Your task to perform on an android device: Go to internet settings Image 0: 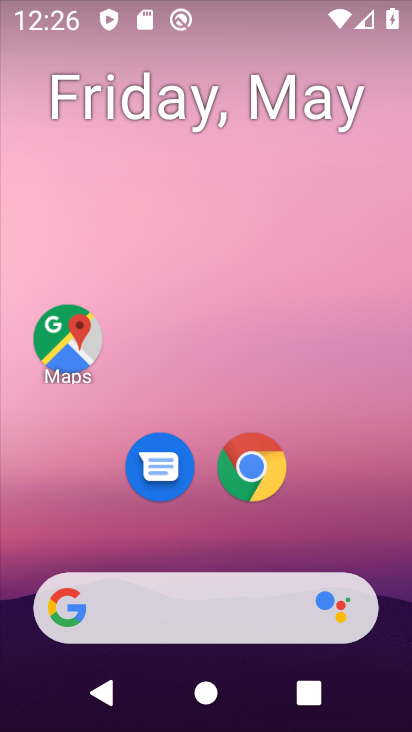
Step 0: drag from (386, 544) to (347, 69)
Your task to perform on an android device: Go to internet settings Image 1: 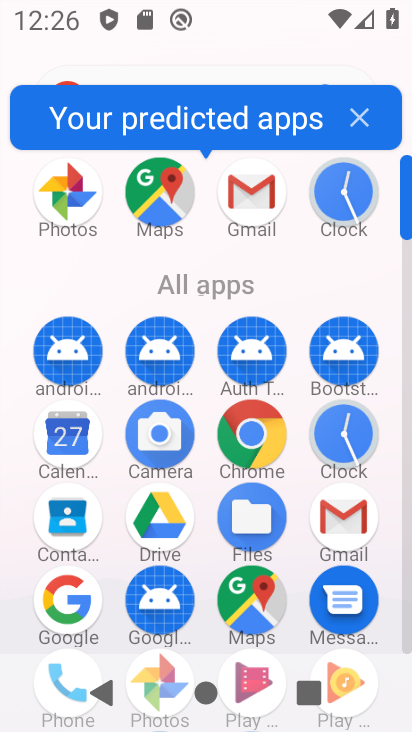
Step 1: click (406, 640)
Your task to perform on an android device: Go to internet settings Image 2: 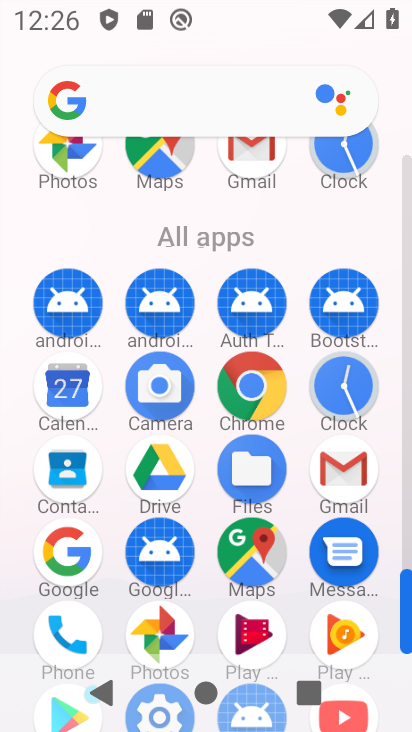
Step 2: drag from (406, 640) to (411, 714)
Your task to perform on an android device: Go to internet settings Image 3: 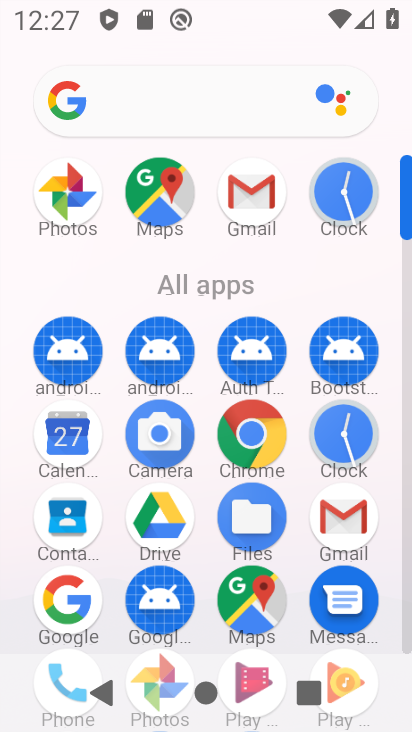
Step 3: click (404, 642)
Your task to perform on an android device: Go to internet settings Image 4: 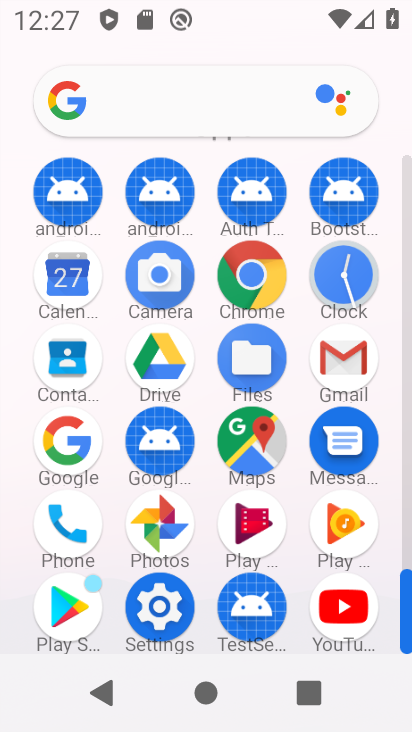
Step 4: click (146, 632)
Your task to perform on an android device: Go to internet settings Image 5: 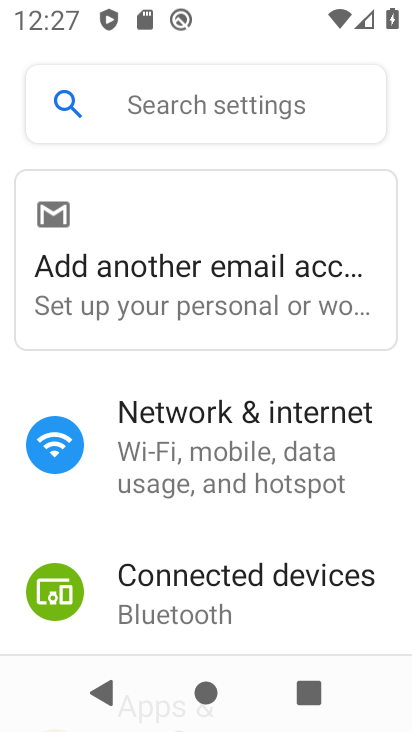
Step 5: click (191, 258)
Your task to perform on an android device: Go to internet settings Image 6: 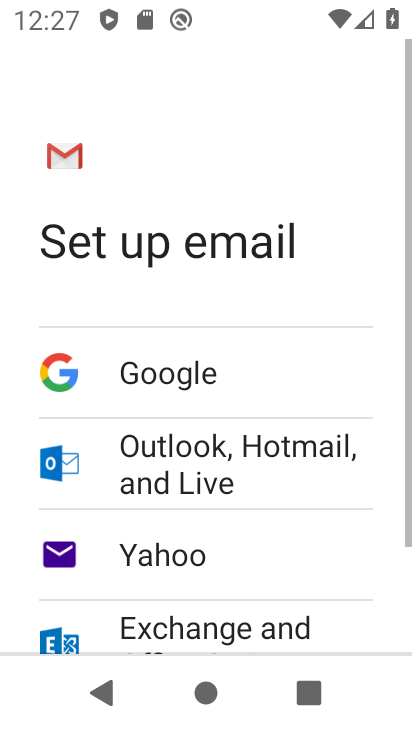
Step 6: press back button
Your task to perform on an android device: Go to internet settings Image 7: 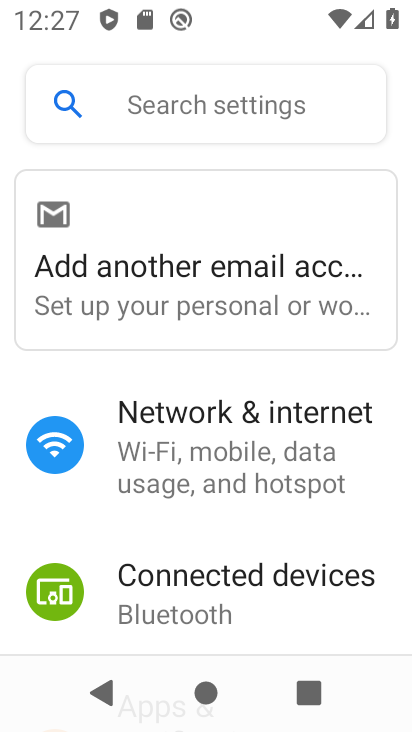
Step 7: click (271, 424)
Your task to perform on an android device: Go to internet settings Image 8: 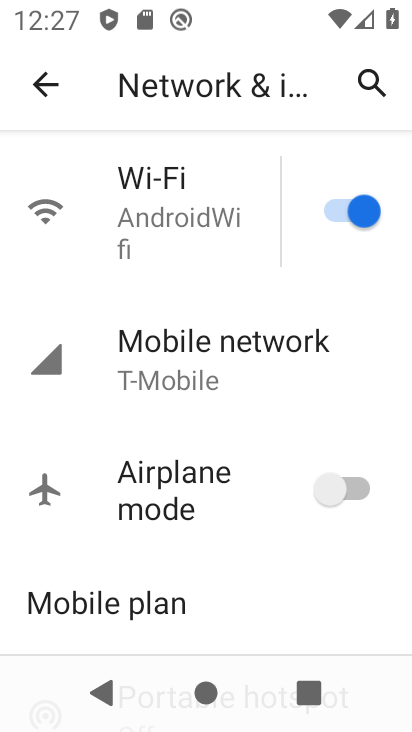
Step 8: task complete